Your task to perform on an android device: Go to battery settings Image 0: 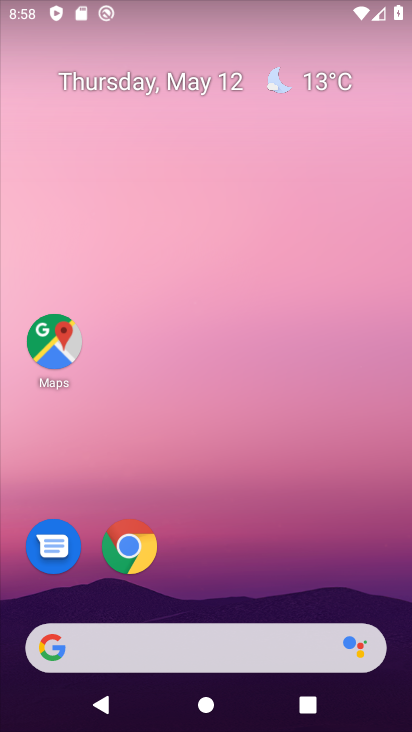
Step 0: drag from (281, 548) to (349, 67)
Your task to perform on an android device: Go to battery settings Image 1: 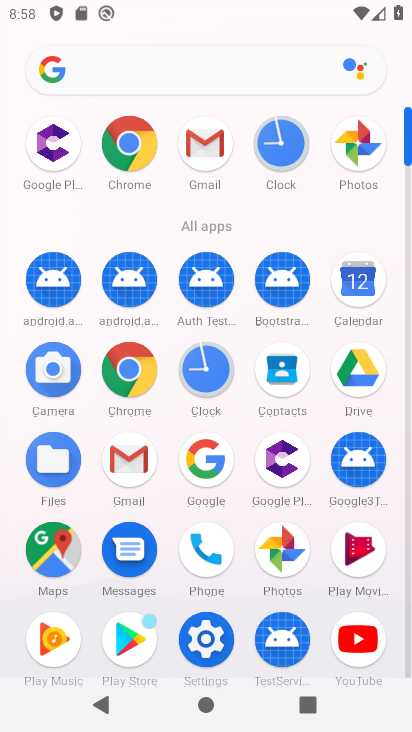
Step 1: click (205, 631)
Your task to perform on an android device: Go to battery settings Image 2: 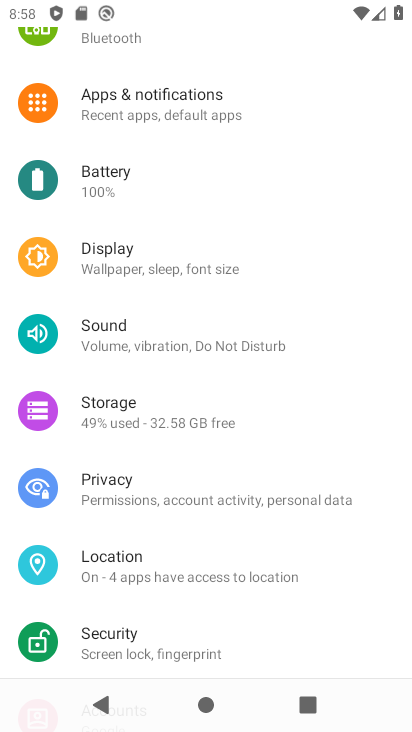
Step 2: click (101, 174)
Your task to perform on an android device: Go to battery settings Image 3: 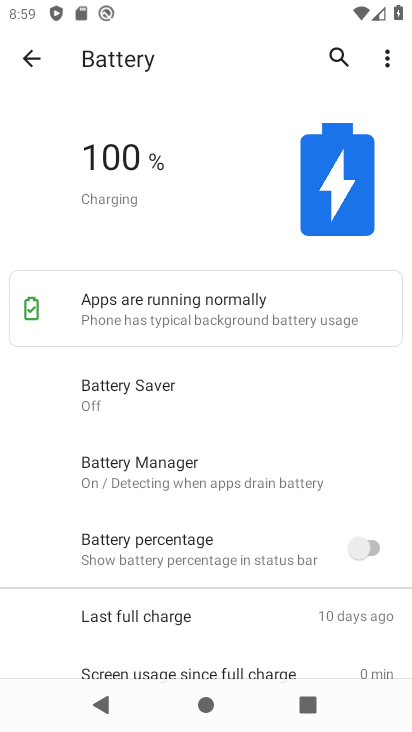
Step 3: task complete